Your task to perform on an android device: create a new album in the google photos Image 0: 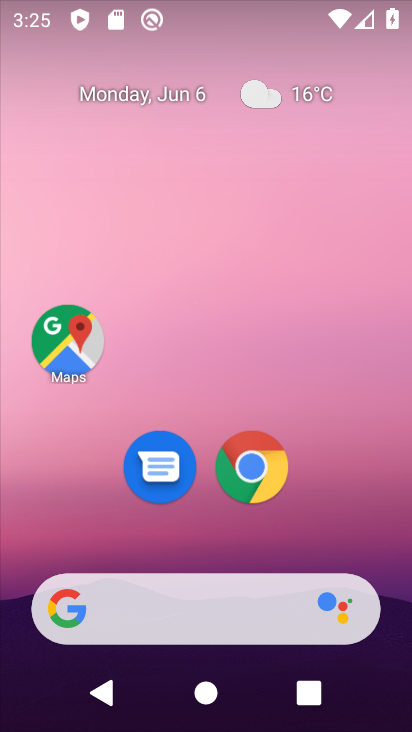
Step 0: press home button
Your task to perform on an android device: create a new album in the google photos Image 1: 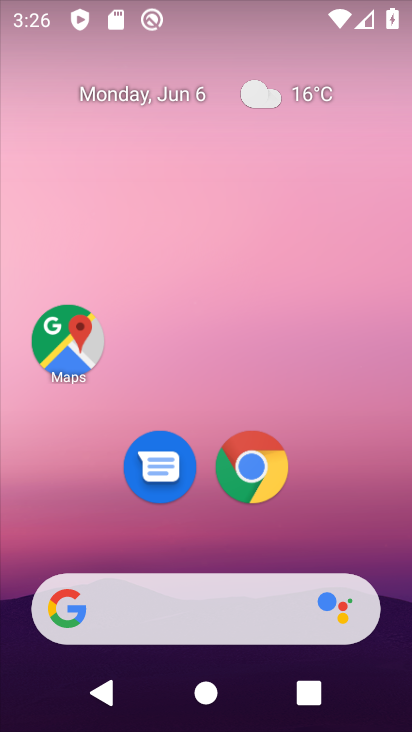
Step 1: drag from (211, 552) to (275, 22)
Your task to perform on an android device: create a new album in the google photos Image 2: 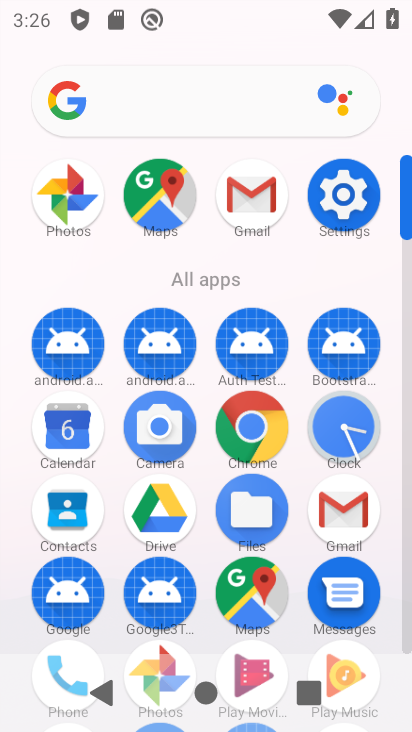
Step 2: drag from (218, 378) to (231, 200)
Your task to perform on an android device: create a new album in the google photos Image 3: 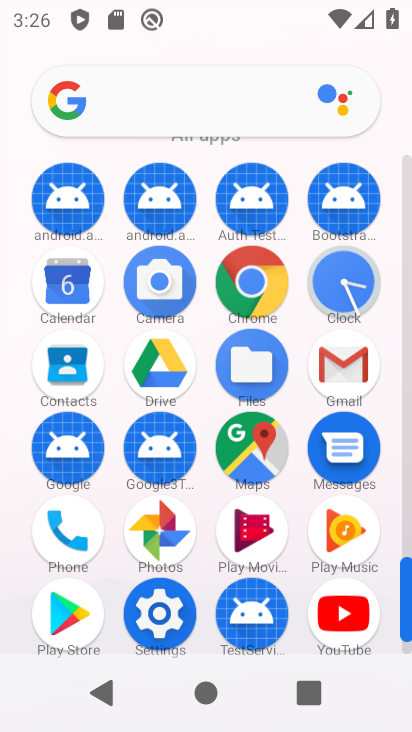
Step 3: click (153, 525)
Your task to perform on an android device: create a new album in the google photos Image 4: 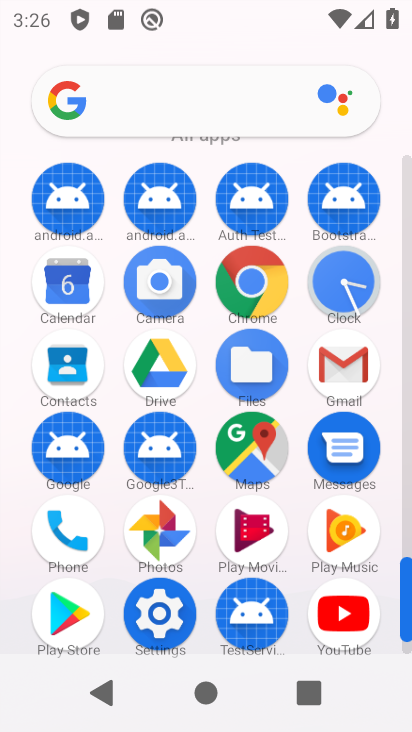
Step 4: click (156, 518)
Your task to perform on an android device: create a new album in the google photos Image 5: 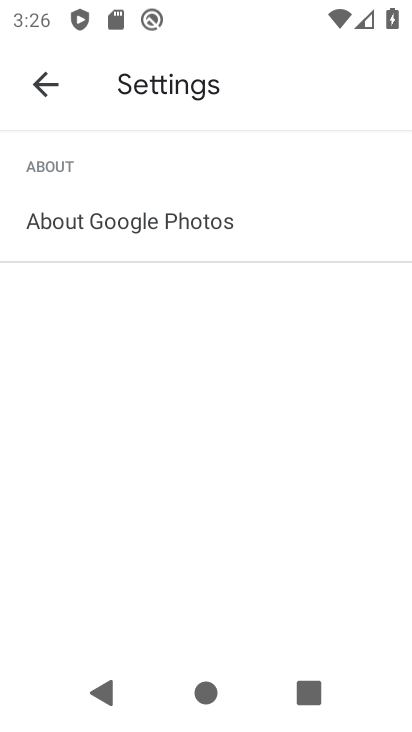
Step 5: click (57, 89)
Your task to perform on an android device: create a new album in the google photos Image 6: 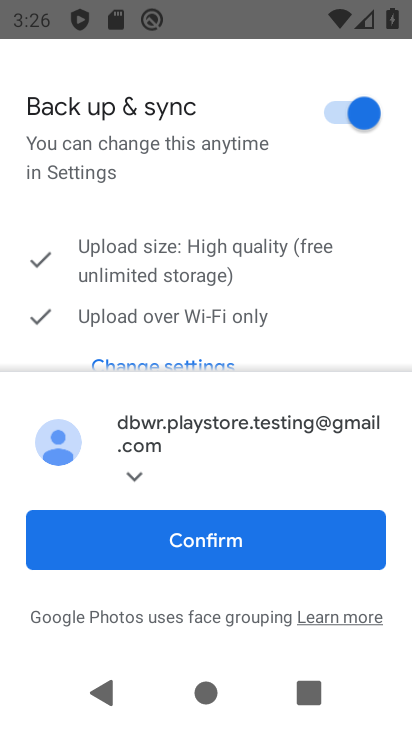
Step 6: click (206, 535)
Your task to perform on an android device: create a new album in the google photos Image 7: 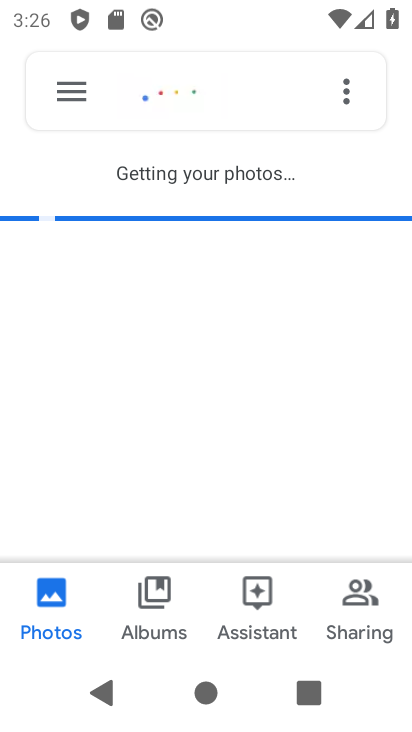
Step 7: click (145, 597)
Your task to perform on an android device: create a new album in the google photos Image 8: 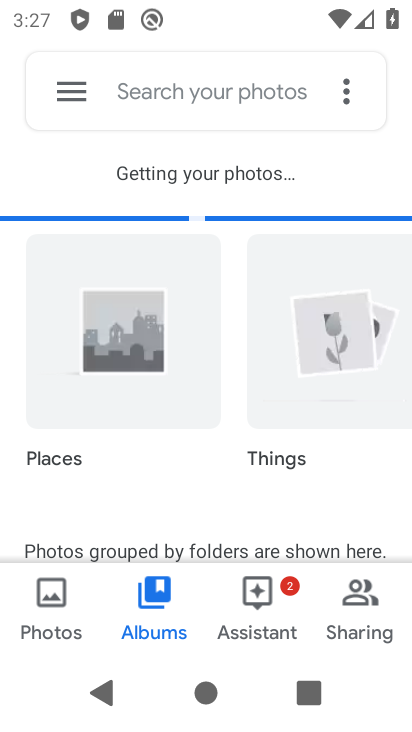
Step 8: click (347, 85)
Your task to perform on an android device: create a new album in the google photos Image 9: 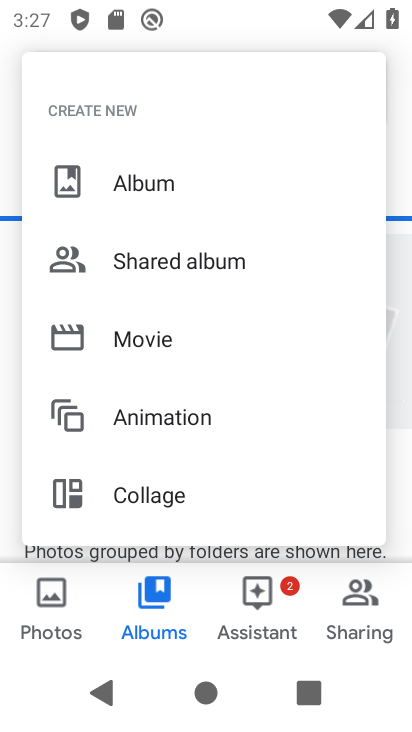
Step 9: click (195, 183)
Your task to perform on an android device: create a new album in the google photos Image 10: 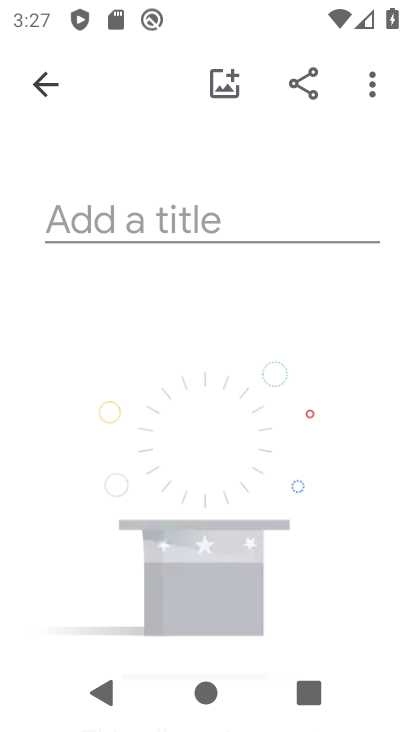
Step 10: drag from (206, 502) to (274, 154)
Your task to perform on an android device: create a new album in the google photos Image 11: 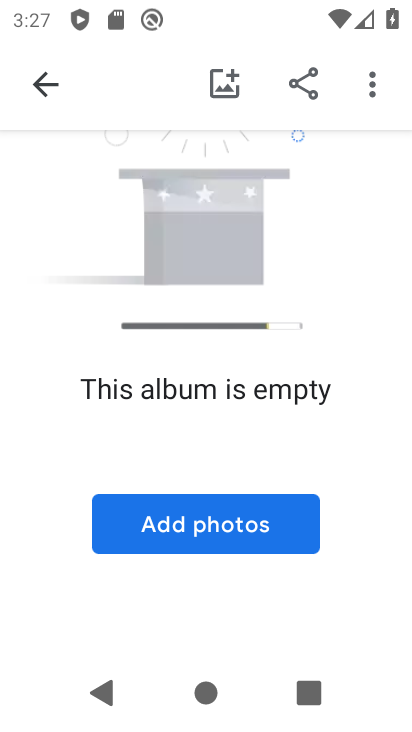
Step 11: click (208, 524)
Your task to perform on an android device: create a new album in the google photos Image 12: 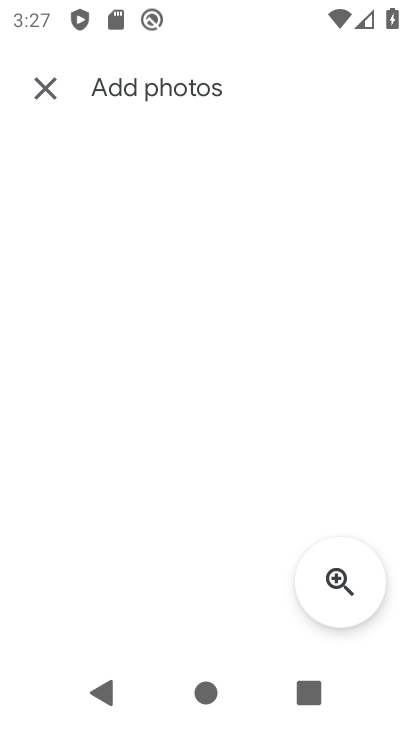
Step 12: drag from (167, 575) to (237, 187)
Your task to perform on an android device: create a new album in the google photos Image 13: 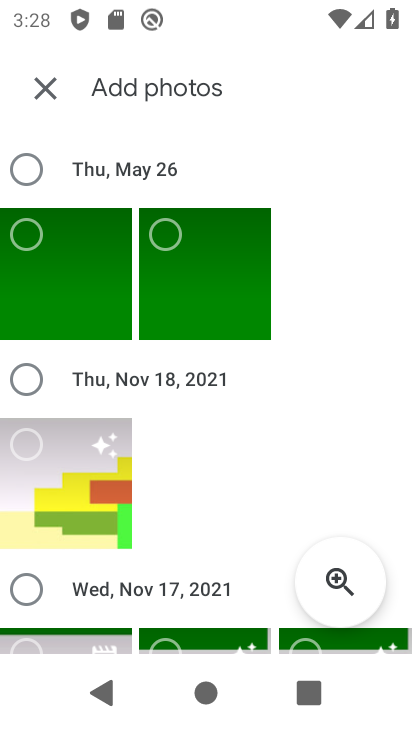
Step 13: click (40, 280)
Your task to perform on an android device: create a new album in the google photos Image 14: 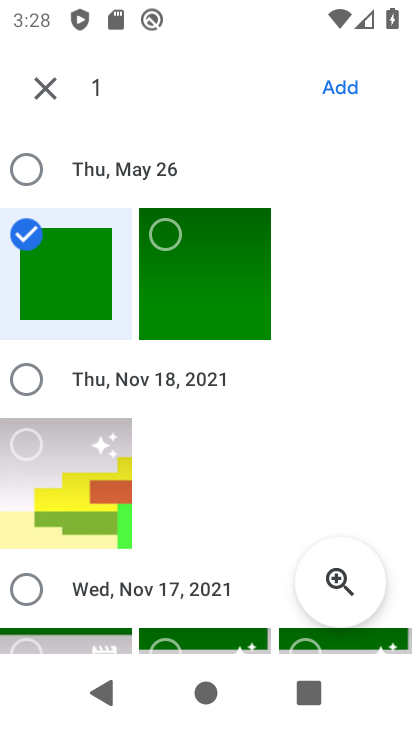
Step 14: click (54, 479)
Your task to perform on an android device: create a new album in the google photos Image 15: 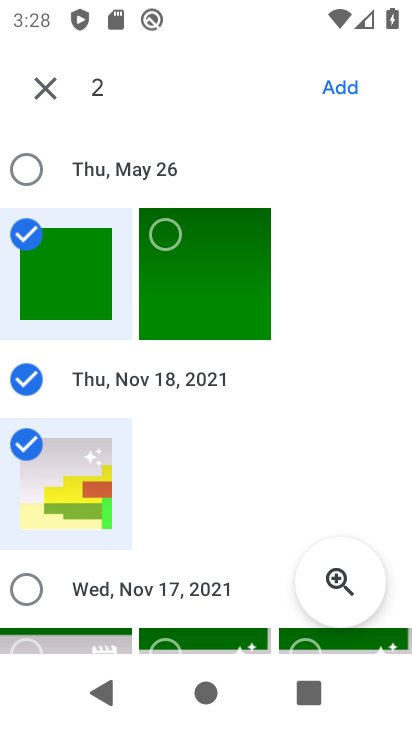
Step 15: click (98, 631)
Your task to perform on an android device: create a new album in the google photos Image 16: 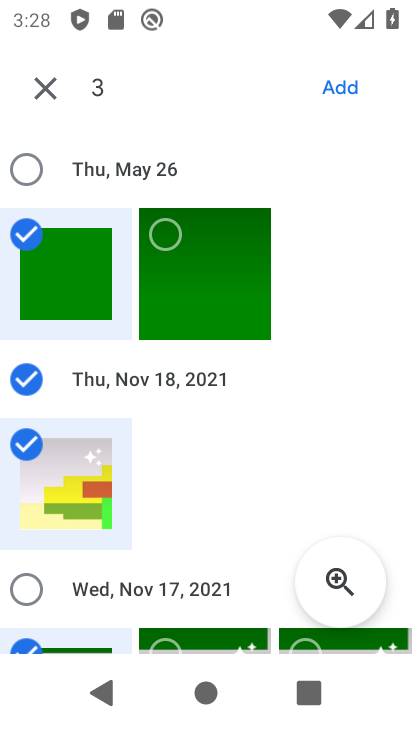
Step 16: click (317, 91)
Your task to perform on an android device: create a new album in the google photos Image 17: 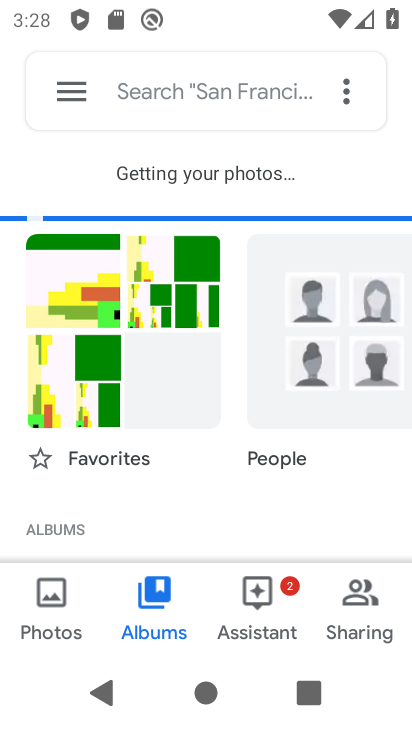
Step 17: click (340, 94)
Your task to perform on an android device: create a new album in the google photos Image 18: 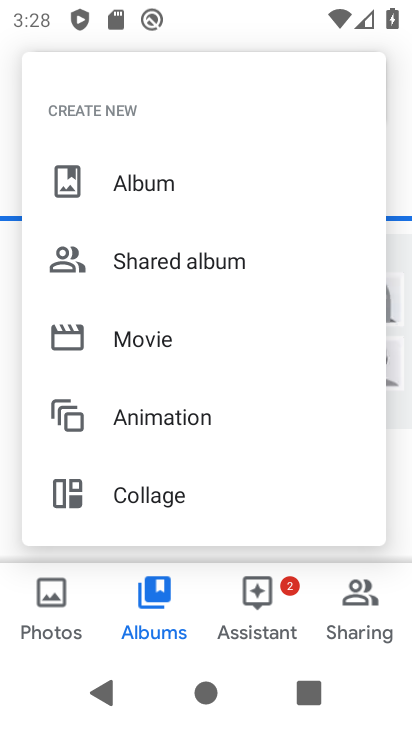
Step 18: click (185, 178)
Your task to perform on an android device: create a new album in the google photos Image 19: 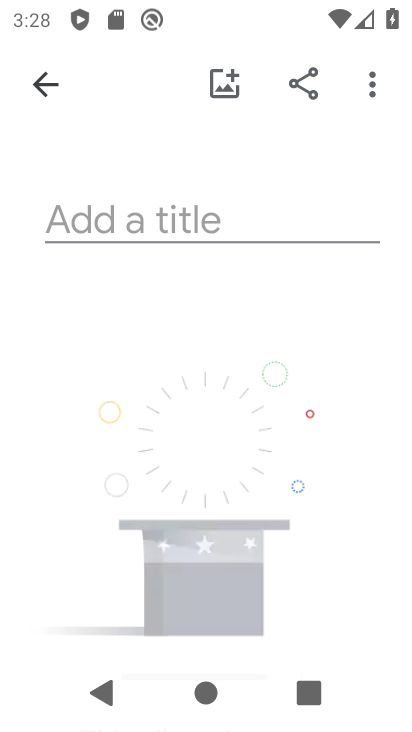
Step 19: drag from (184, 516) to (227, 101)
Your task to perform on an android device: create a new album in the google photos Image 20: 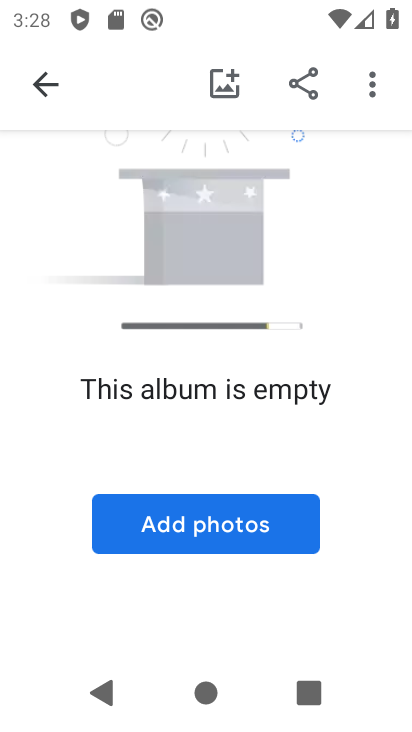
Step 20: click (218, 533)
Your task to perform on an android device: create a new album in the google photos Image 21: 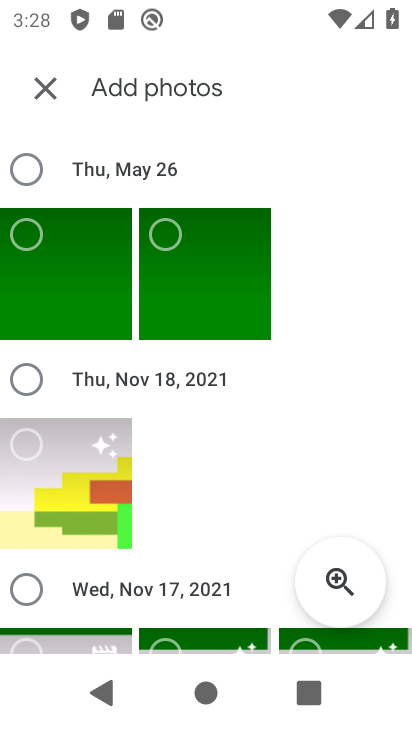
Step 21: click (26, 162)
Your task to perform on an android device: create a new album in the google photos Image 22: 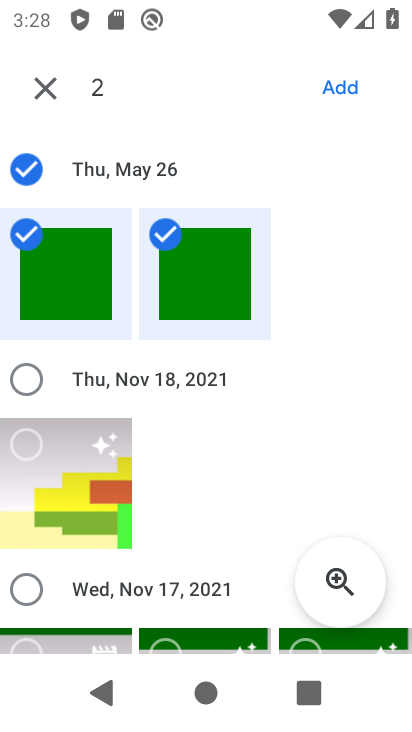
Step 22: click (21, 368)
Your task to perform on an android device: create a new album in the google photos Image 23: 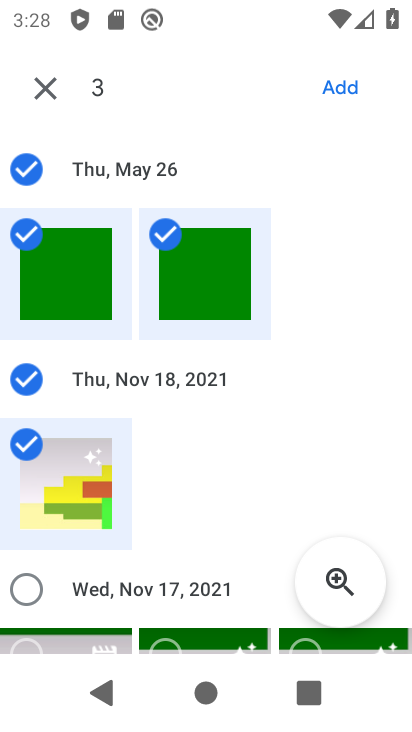
Step 23: click (31, 587)
Your task to perform on an android device: create a new album in the google photos Image 24: 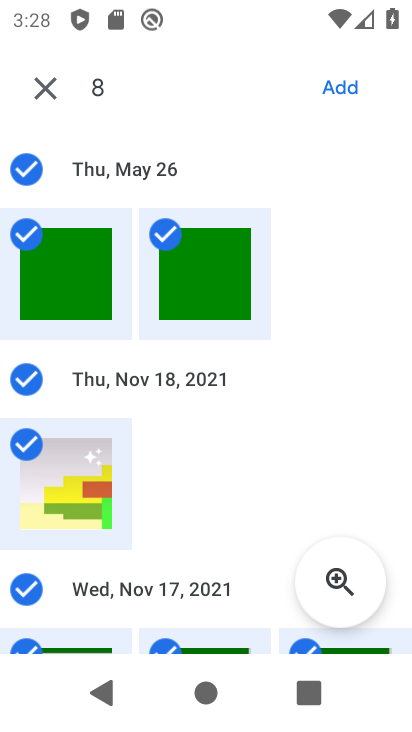
Step 24: drag from (131, 600) to (215, 122)
Your task to perform on an android device: create a new album in the google photos Image 25: 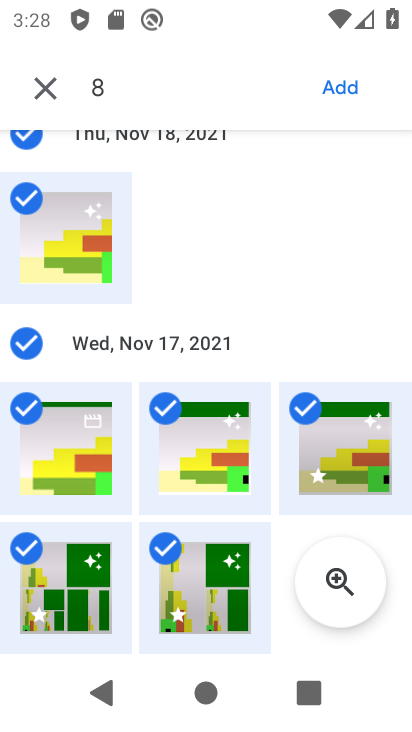
Step 25: click (34, 340)
Your task to perform on an android device: create a new album in the google photos Image 26: 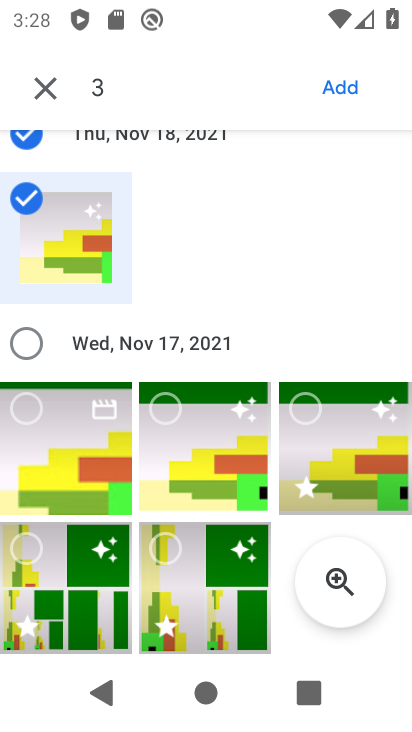
Step 26: click (341, 75)
Your task to perform on an android device: create a new album in the google photos Image 27: 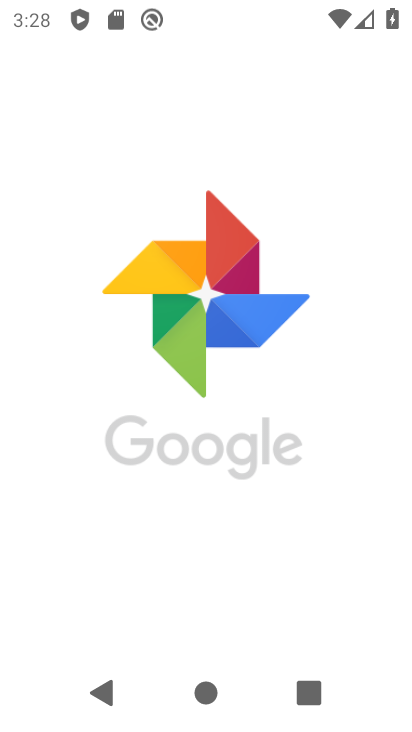
Step 27: task complete